Your task to perform on an android device: Open maps Image 0: 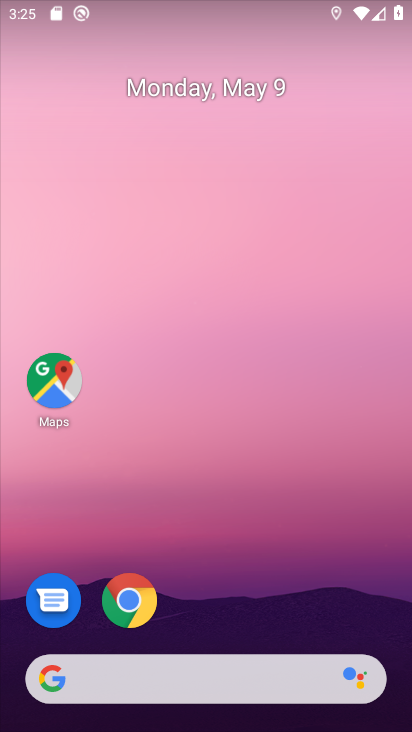
Step 0: click (52, 390)
Your task to perform on an android device: Open maps Image 1: 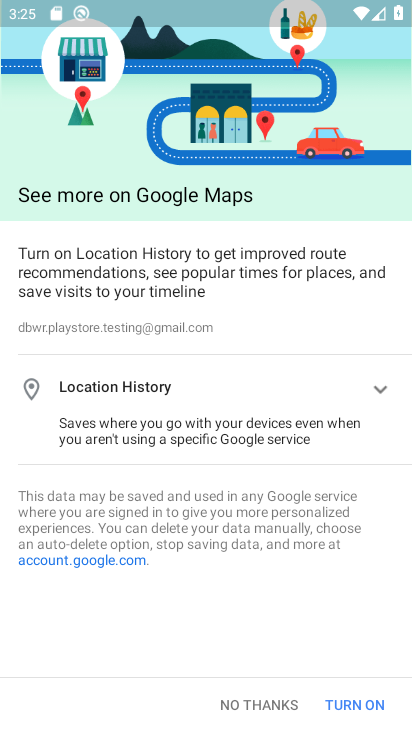
Step 1: click (260, 714)
Your task to perform on an android device: Open maps Image 2: 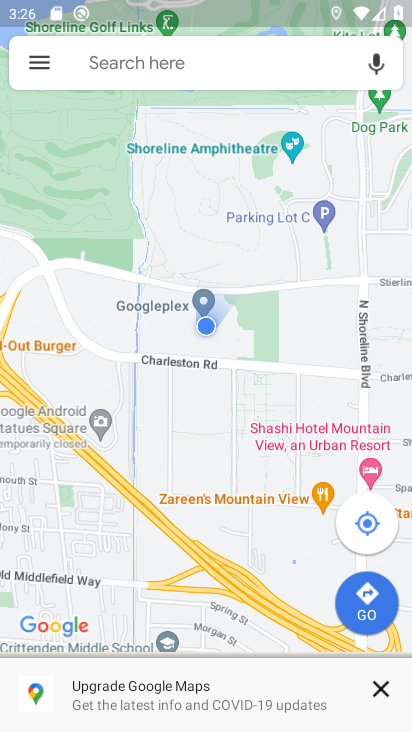
Step 2: task complete